Your task to perform on an android device: What's the weather going to be this weekend? Image 0: 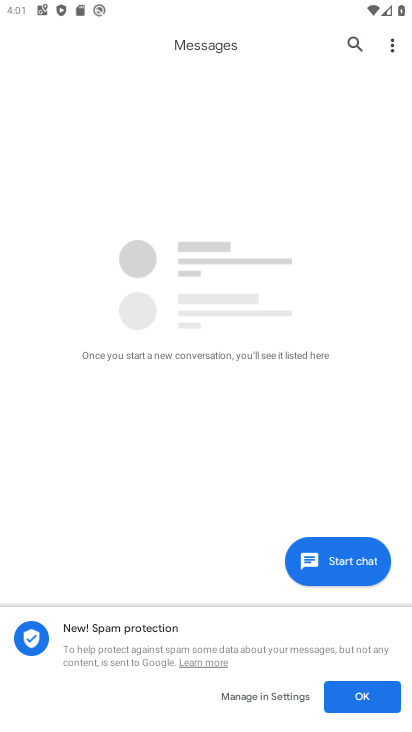
Step 0: press back button
Your task to perform on an android device: What's the weather going to be this weekend? Image 1: 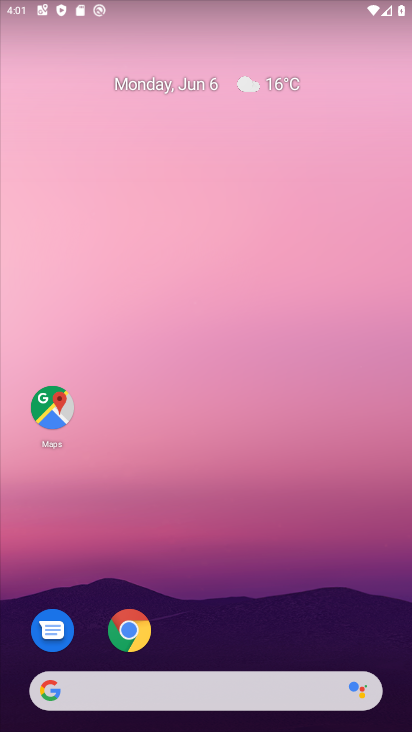
Step 1: click (248, 82)
Your task to perform on an android device: What's the weather going to be this weekend? Image 2: 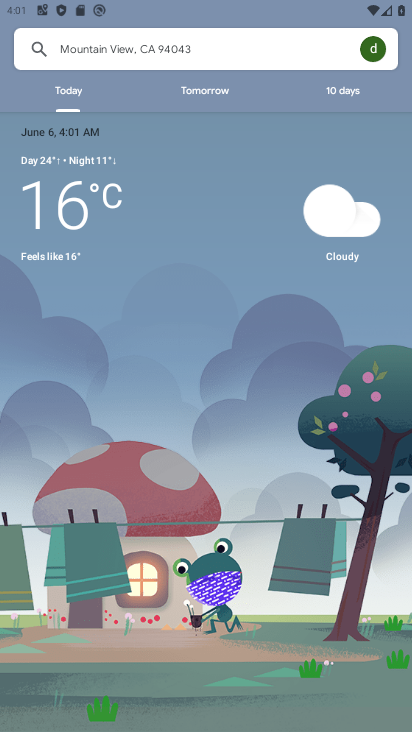
Step 2: click (331, 88)
Your task to perform on an android device: What's the weather going to be this weekend? Image 3: 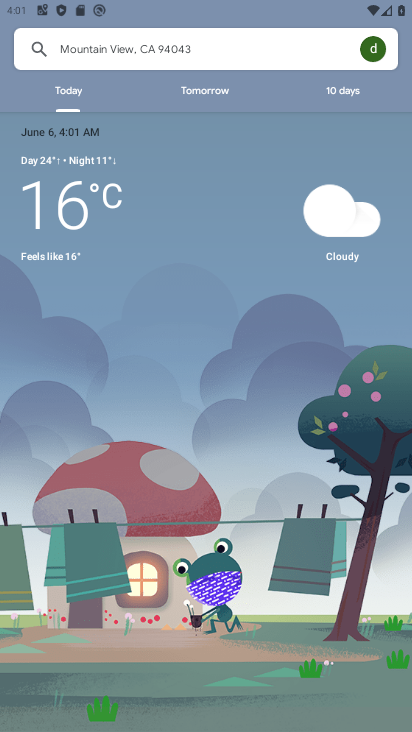
Step 3: click (339, 90)
Your task to perform on an android device: What's the weather going to be this weekend? Image 4: 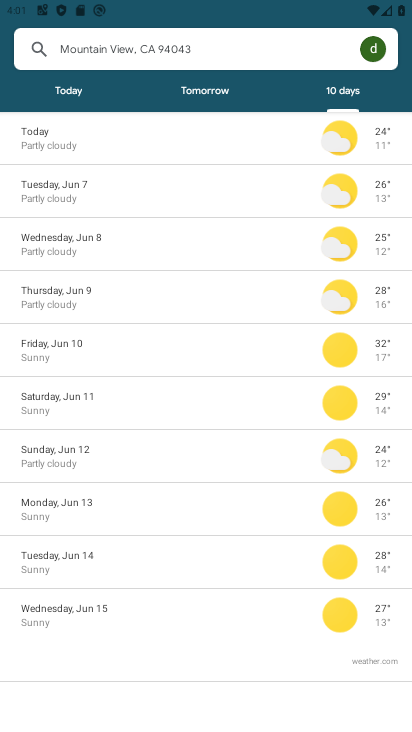
Step 4: task complete